Your task to perform on an android device: Go to Google Image 0: 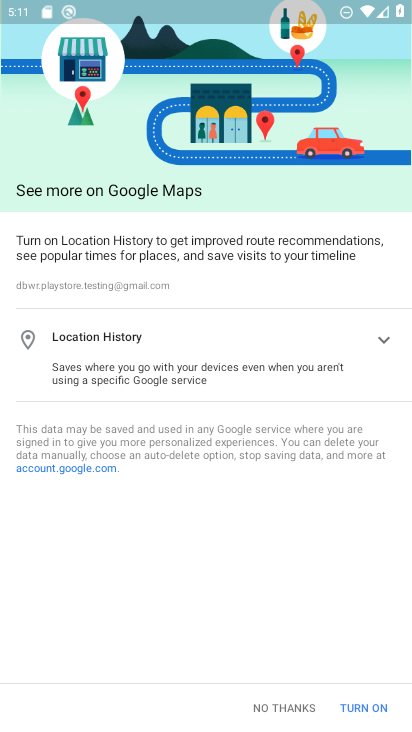
Step 0: press home button
Your task to perform on an android device: Go to Google Image 1: 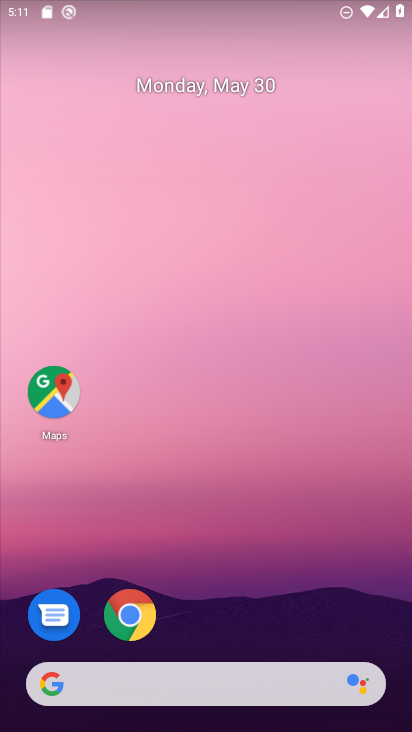
Step 1: click (146, 699)
Your task to perform on an android device: Go to Google Image 2: 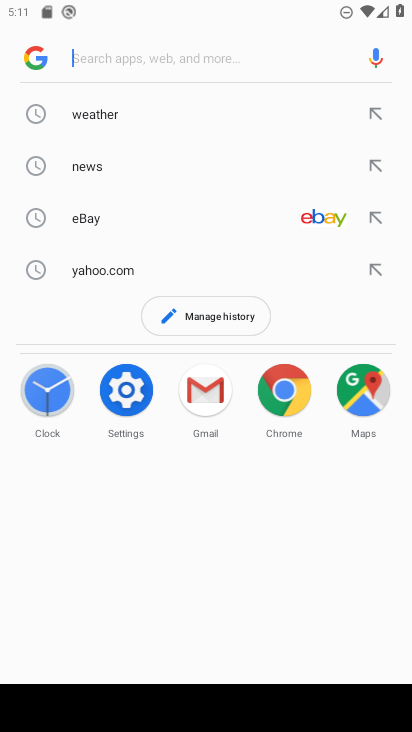
Step 2: task complete